Your task to perform on an android device: Open privacy settings Image 0: 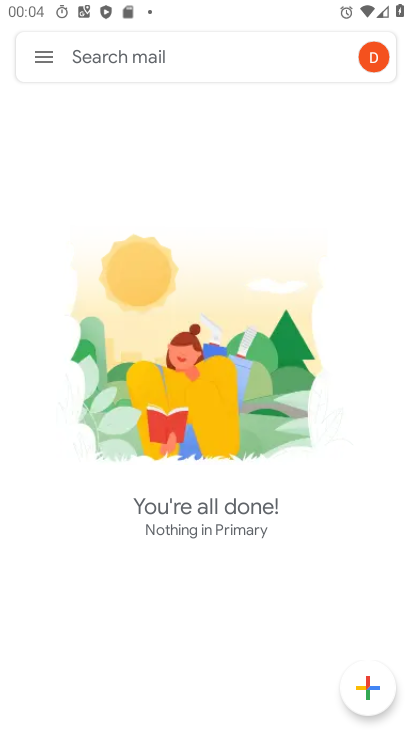
Step 0: press home button
Your task to perform on an android device: Open privacy settings Image 1: 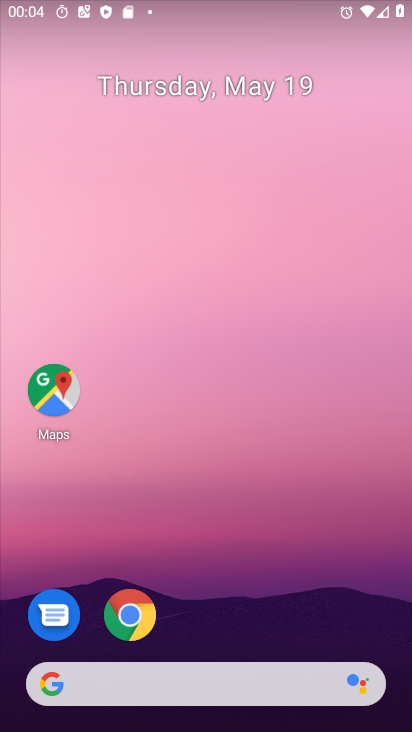
Step 1: drag from (28, 517) to (213, 169)
Your task to perform on an android device: Open privacy settings Image 2: 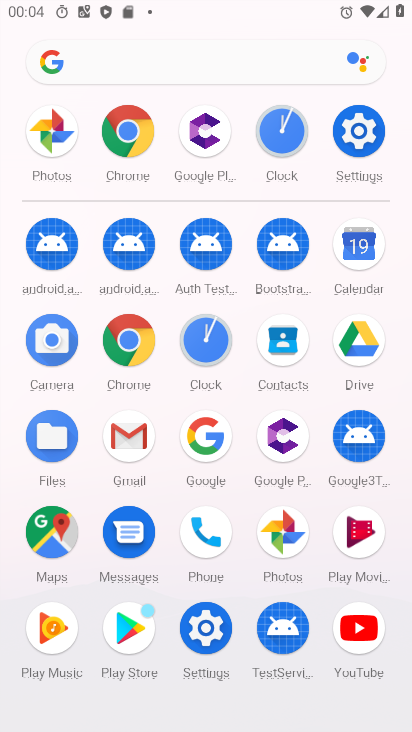
Step 2: click (364, 121)
Your task to perform on an android device: Open privacy settings Image 3: 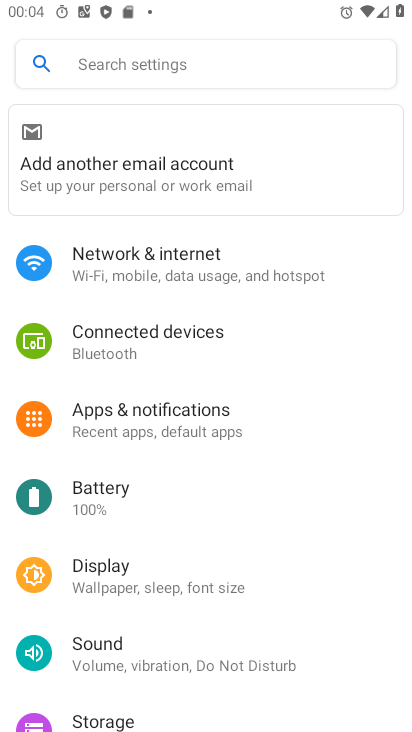
Step 3: drag from (29, 376) to (167, 132)
Your task to perform on an android device: Open privacy settings Image 4: 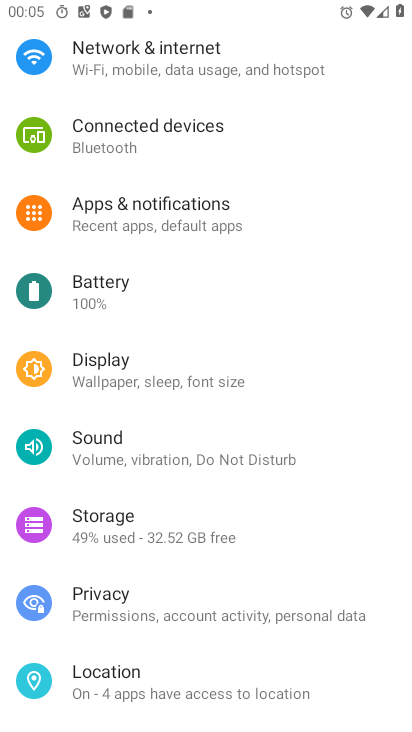
Step 4: click (110, 607)
Your task to perform on an android device: Open privacy settings Image 5: 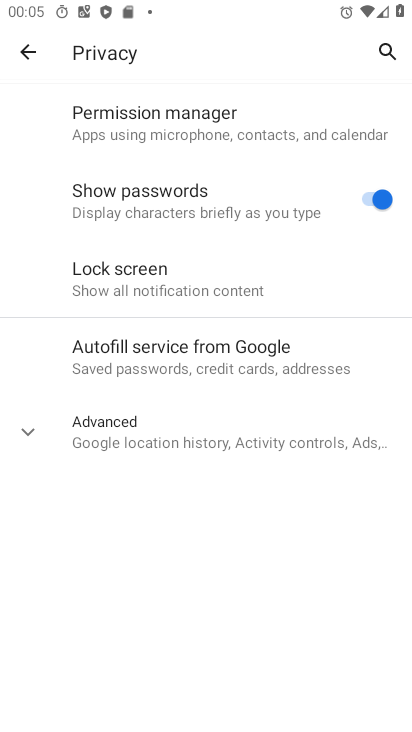
Step 5: task complete